Your task to perform on an android device: Search for vegetarian restaurants on Maps Image 0: 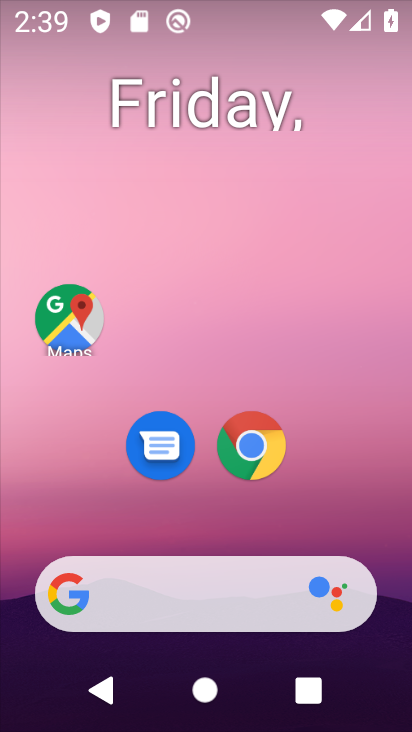
Step 0: click (61, 315)
Your task to perform on an android device: Search for vegetarian restaurants on Maps Image 1: 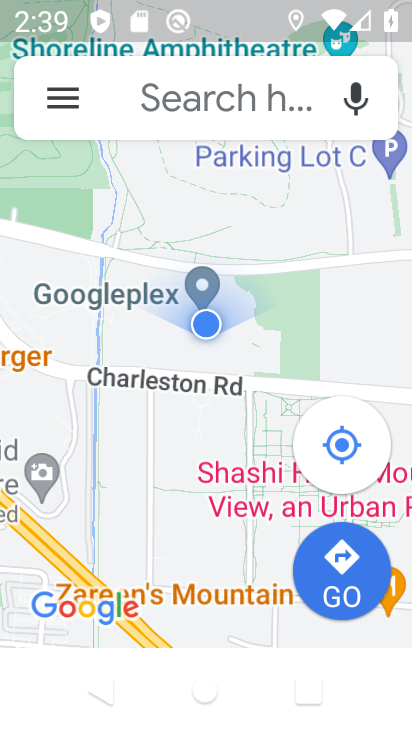
Step 1: click (158, 102)
Your task to perform on an android device: Search for vegetarian restaurants on Maps Image 2: 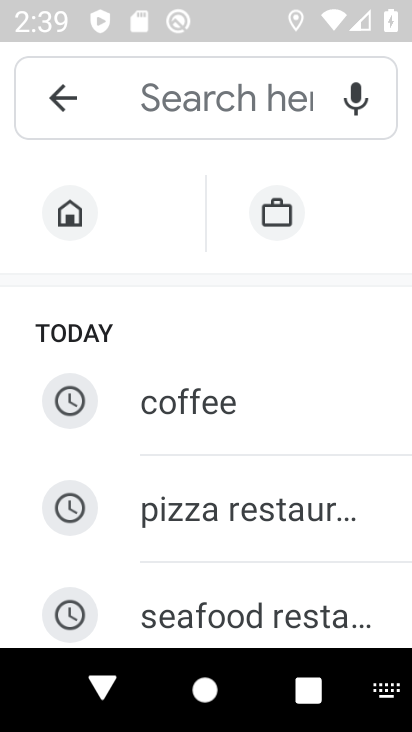
Step 2: drag from (170, 535) to (204, 193)
Your task to perform on an android device: Search for vegetarian restaurants on Maps Image 3: 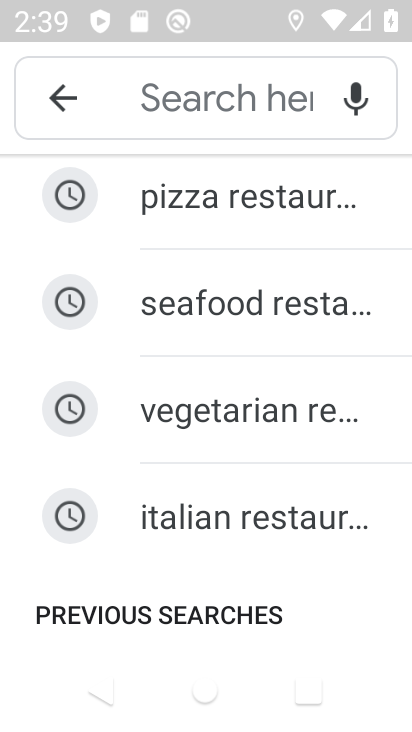
Step 3: click (248, 415)
Your task to perform on an android device: Search for vegetarian restaurants on Maps Image 4: 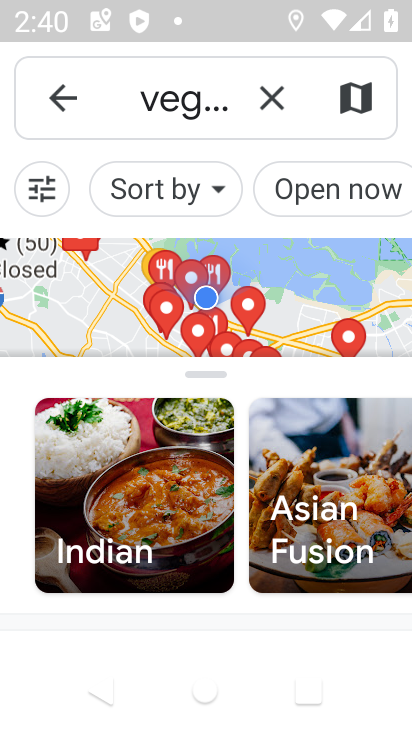
Step 4: task complete